Your task to perform on an android device: Go to network settings Image 0: 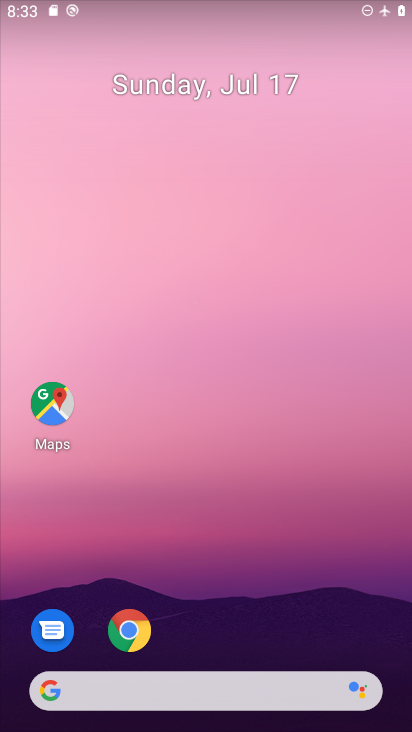
Step 0: drag from (236, 620) to (271, 114)
Your task to perform on an android device: Go to network settings Image 1: 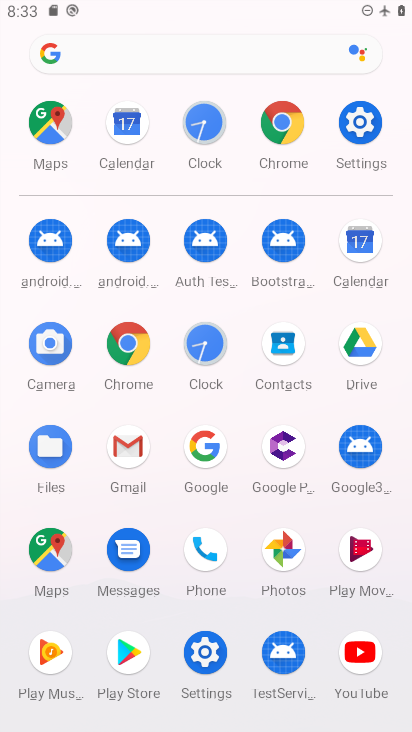
Step 1: click (368, 116)
Your task to perform on an android device: Go to network settings Image 2: 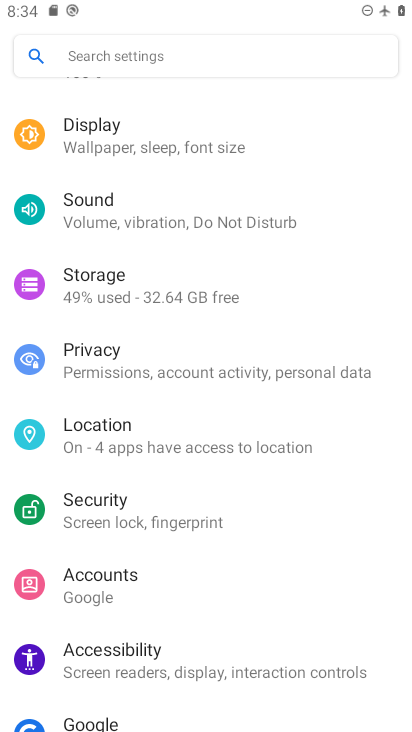
Step 2: drag from (165, 125) to (171, 562)
Your task to perform on an android device: Go to network settings Image 3: 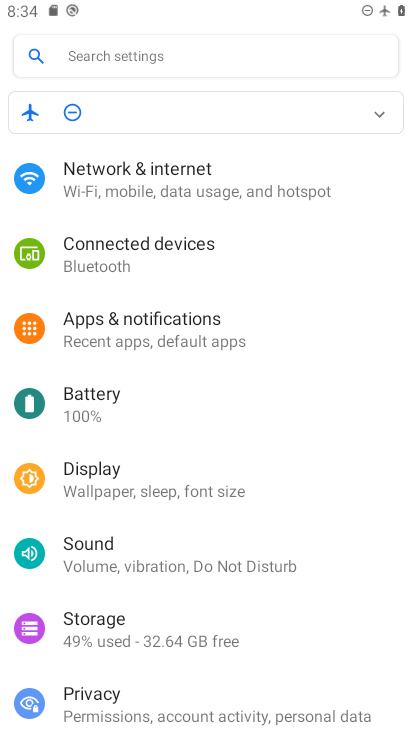
Step 3: click (173, 172)
Your task to perform on an android device: Go to network settings Image 4: 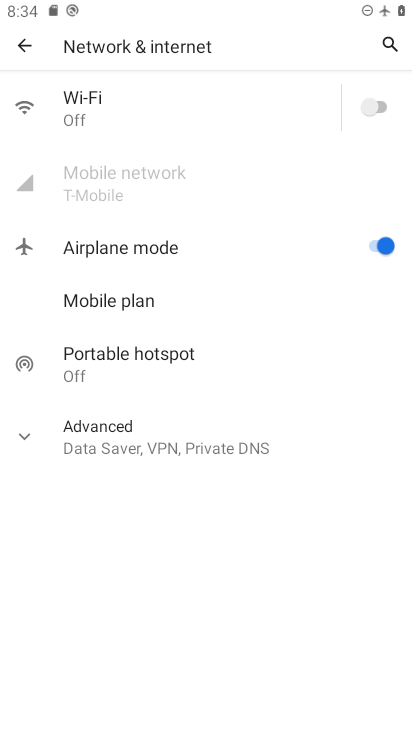
Step 4: task complete